Your task to perform on an android device: Go to Android settings Image 0: 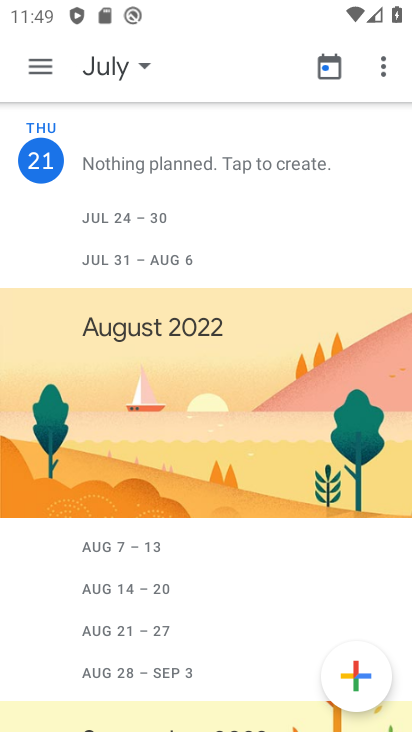
Step 0: press home button
Your task to perform on an android device: Go to Android settings Image 1: 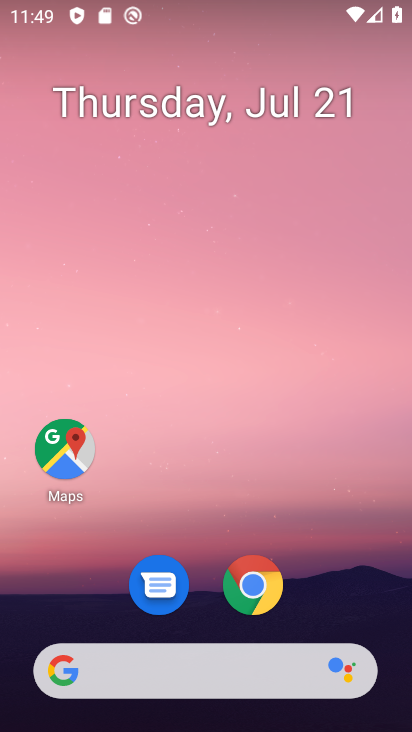
Step 1: drag from (175, 672) to (312, 177)
Your task to perform on an android device: Go to Android settings Image 2: 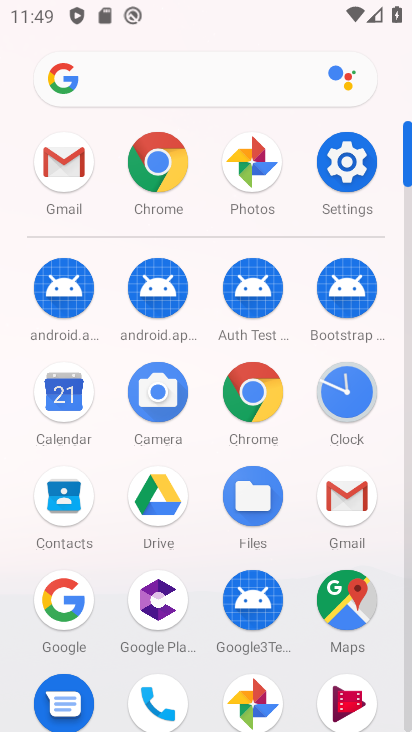
Step 2: click (336, 164)
Your task to perform on an android device: Go to Android settings Image 3: 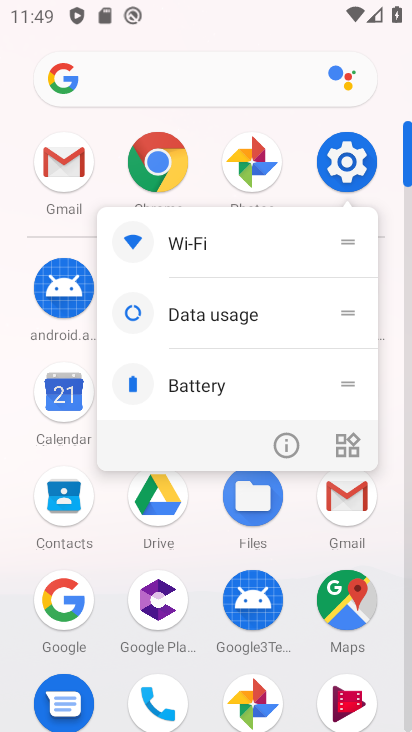
Step 3: click (345, 169)
Your task to perform on an android device: Go to Android settings Image 4: 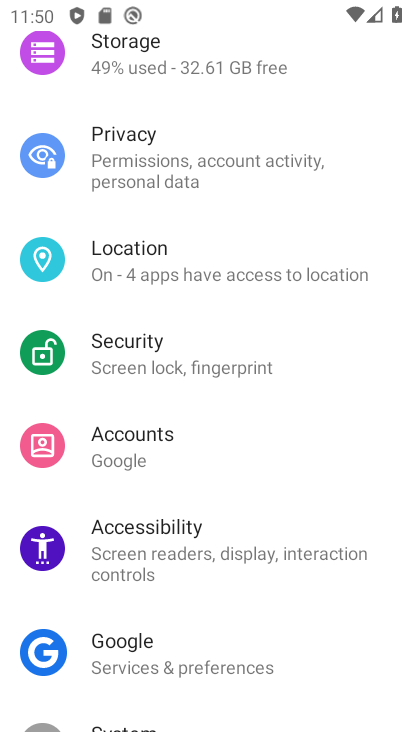
Step 4: task complete